Your task to perform on an android device: turn on the 12-hour format for clock Image 0: 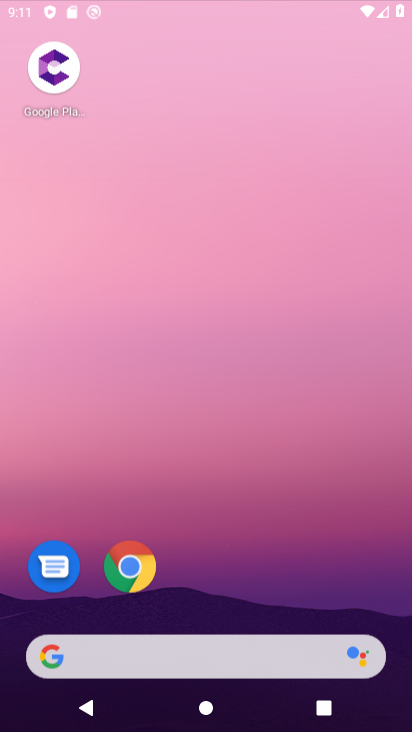
Step 0: click (337, 407)
Your task to perform on an android device: turn on the 12-hour format for clock Image 1: 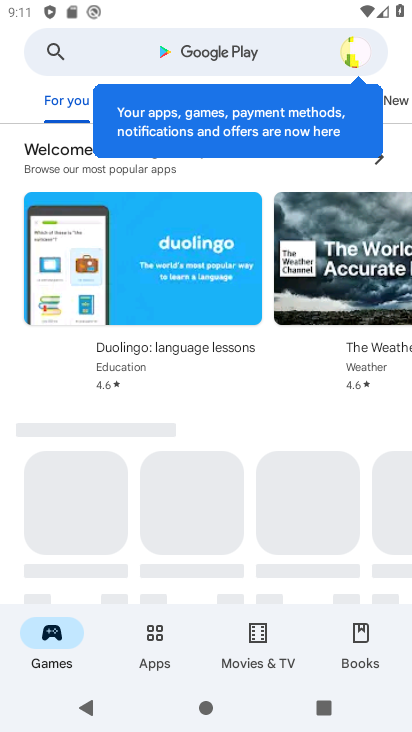
Step 1: press home button
Your task to perform on an android device: turn on the 12-hour format for clock Image 2: 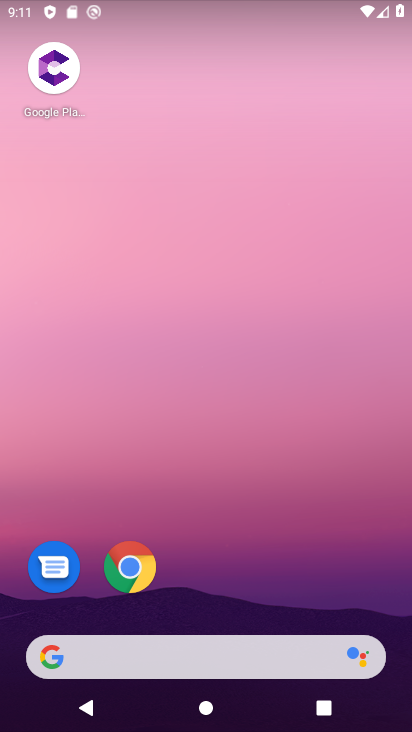
Step 2: drag from (232, 600) to (300, 164)
Your task to perform on an android device: turn on the 12-hour format for clock Image 3: 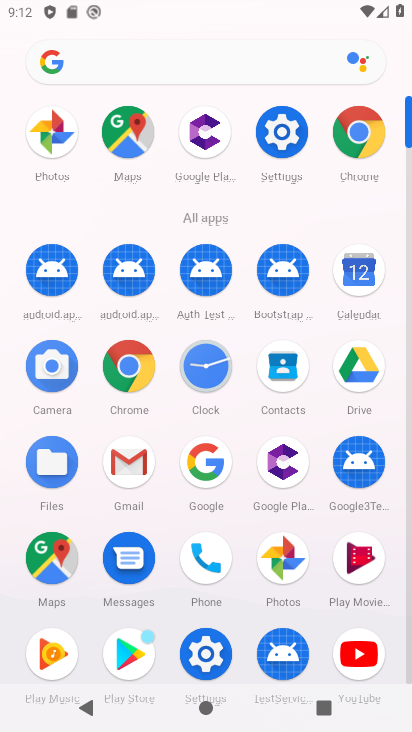
Step 3: click (205, 387)
Your task to perform on an android device: turn on the 12-hour format for clock Image 4: 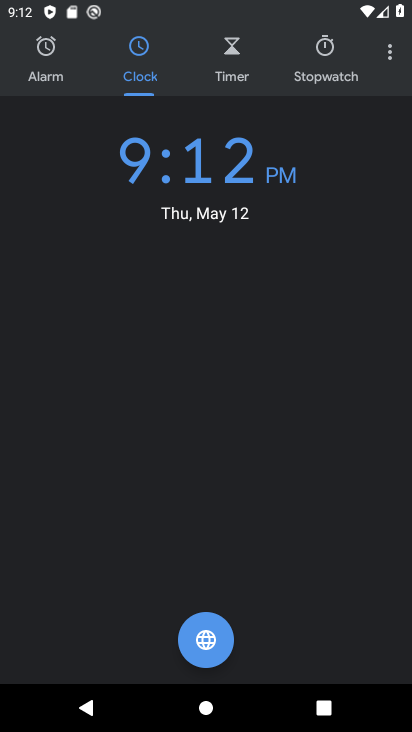
Step 4: click (387, 60)
Your task to perform on an android device: turn on the 12-hour format for clock Image 5: 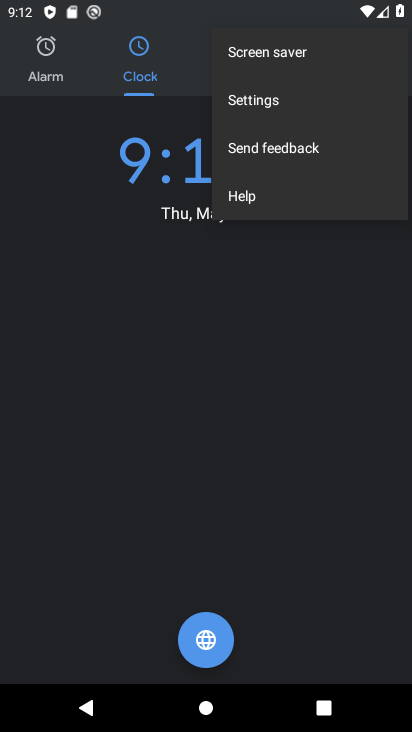
Step 5: click (312, 102)
Your task to perform on an android device: turn on the 12-hour format for clock Image 6: 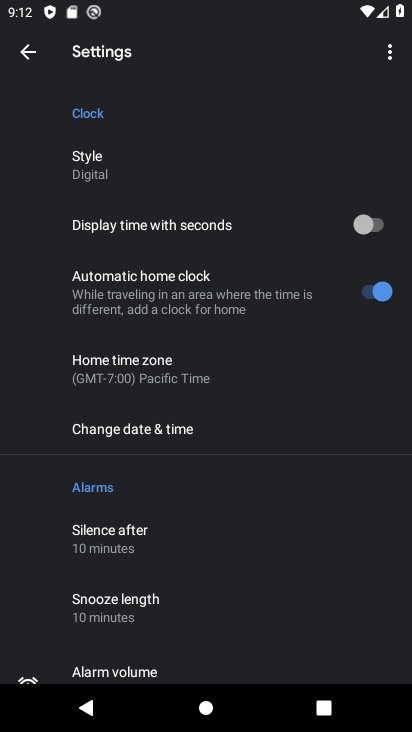
Step 6: click (138, 425)
Your task to perform on an android device: turn on the 12-hour format for clock Image 7: 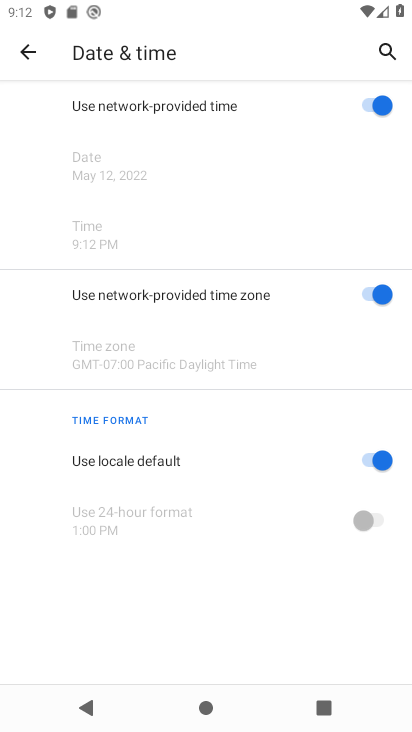
Step 7: task complete